Your task to perform on an android device: turn pop-ups on in chrome Image 0: 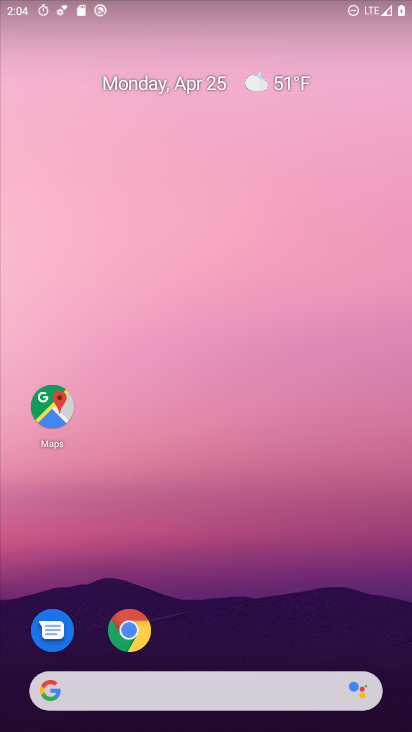
Step 0: drag from (227, 489) to (294, 271)
Your task to perform on an android device: turn pop-ups on in chrome Image 1: 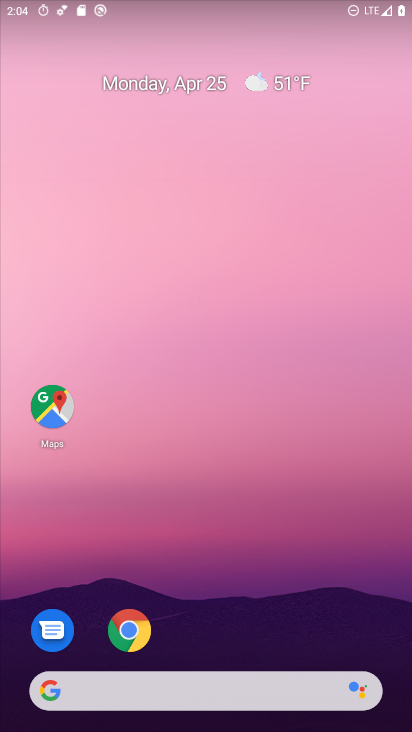
Step 1: click (133, 638)
Your task to perform on an android device: turn pop-ups on in chrome Image 2: 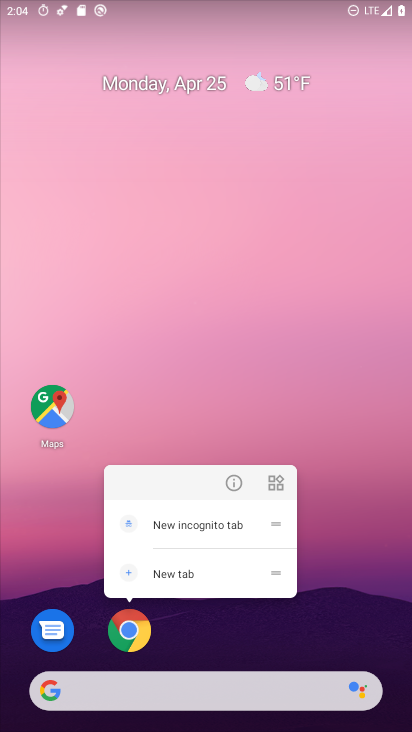
Step 2: click (232, 474)
Your task to perform on an android device: turn pop-ups on in chrome Image 3: 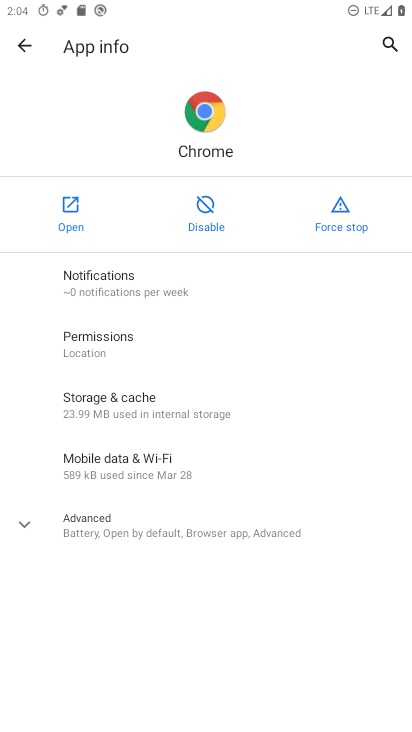
Step 3: click (73, 206)
Your task to perform on an android device: turn pop-ups on in chrome Image 4: 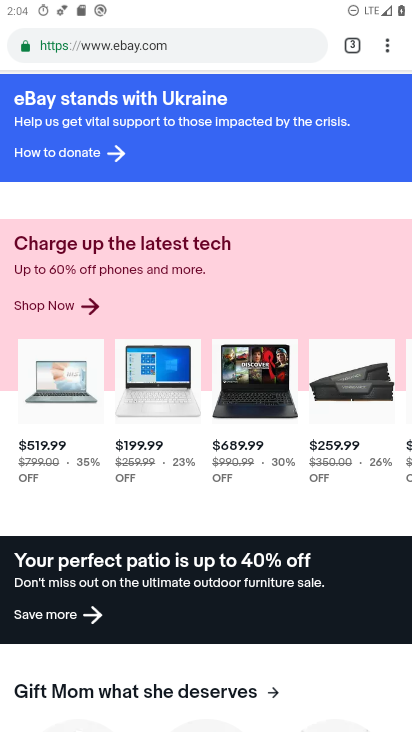
Step 4: click (397, 37)
Your task to perform on an android device: turn pop-ups on in chrome Image 5: 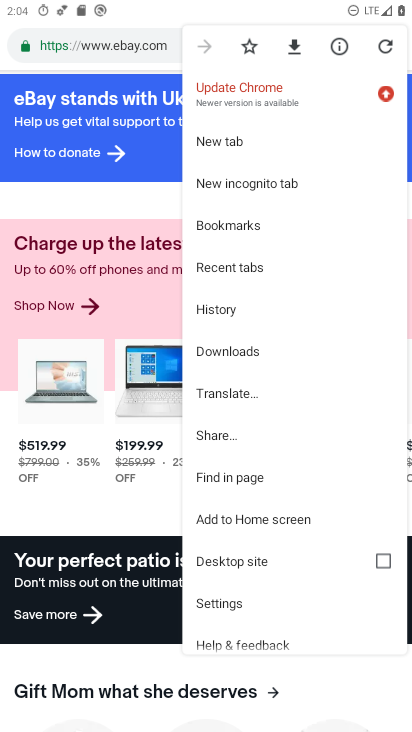
Step 5: click (251, 606)
Your task to perform on an android device: turn pop-ups on in chrome Image 6: 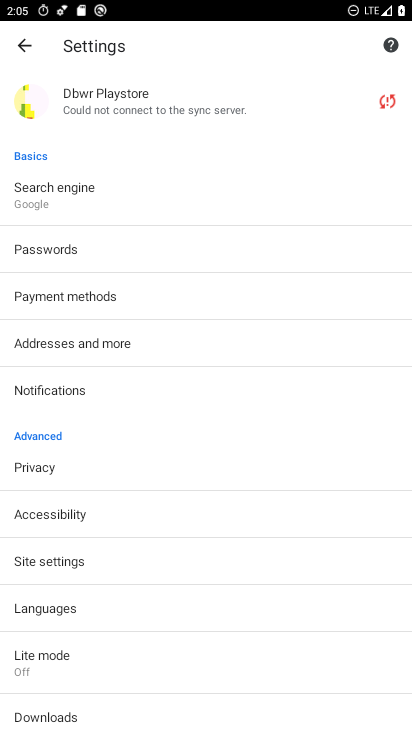
Step 6: drag from (188, 654) to (240, 172)
Your task to perform on an android device: turn pop-ups on in chrome Image 7: 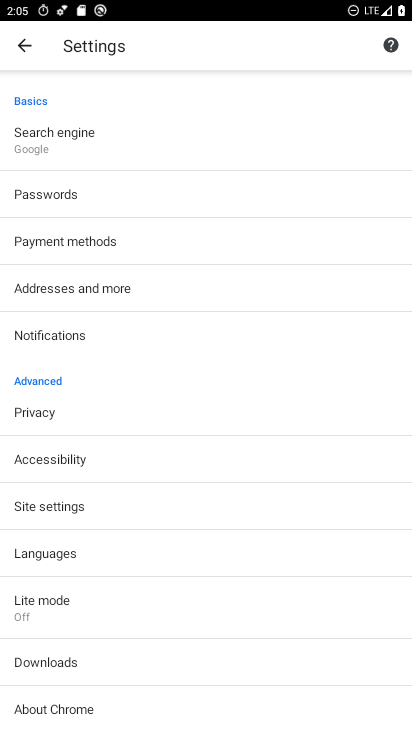
Step 7: click (114, 510)
Your task to perform on an android device: turn pop-ups on in chrome Image 8: 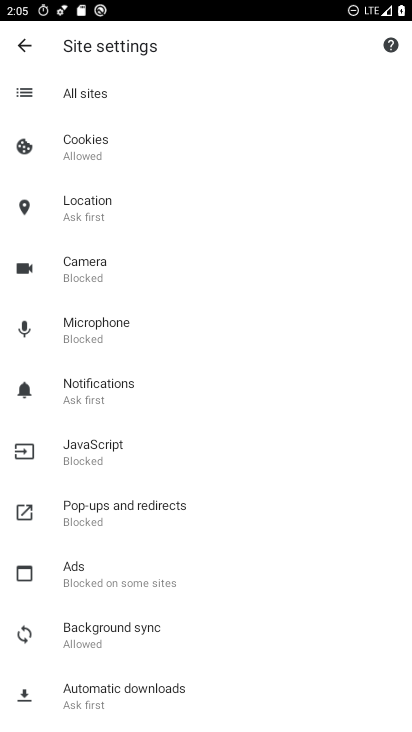
Step 8: click (140, 506)
Your task to perform on an android device: turn pop-ups on in chrome Image 9: 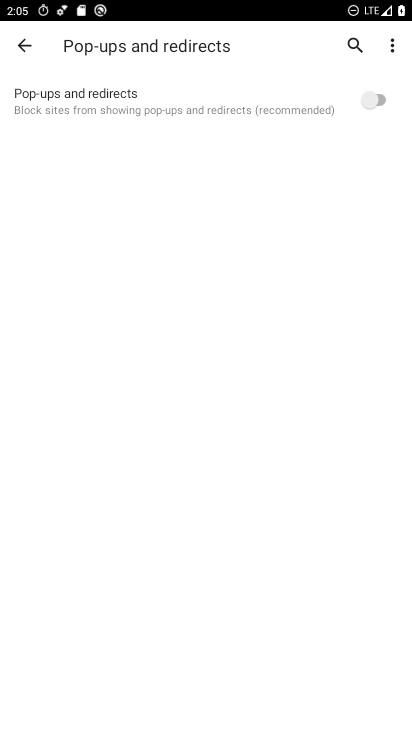
Step 9: click (364, 98)
Your task to perform on an android device: turn pop-ups on in chrome Image 10: 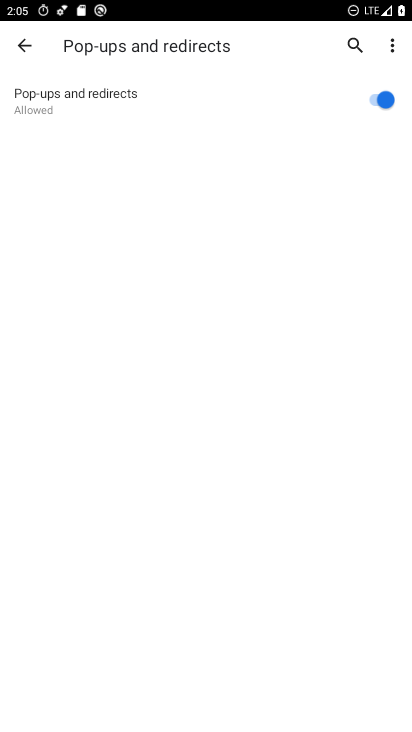
Step 10: task complete